Your task to perform on an android device: refresh tabs in the chrome app Image 0: 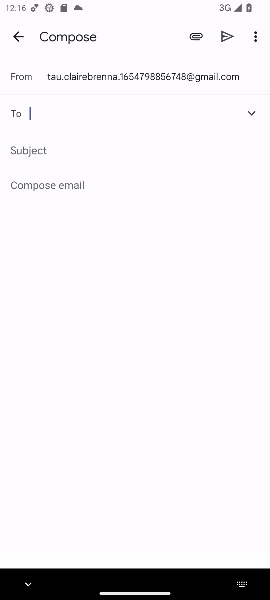
Step 0: press home button
Your task to perform on an android device: refresh tabs in the chrome app Image 1: 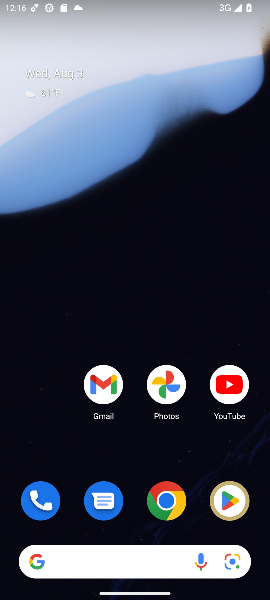
Step 1: click (163, 501)
Your task to perform on an android device: refresh tabs in the chrome app Image 2: 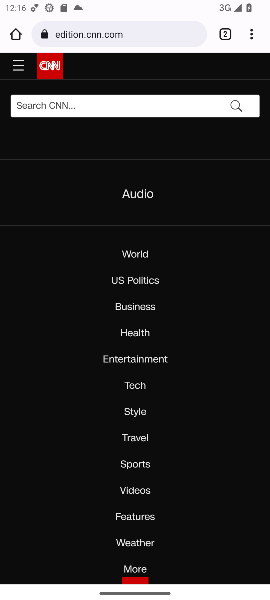
Step 2: click (259, 23)
Your task to perform on an android device: refresh tabs in the chrome app Image 3: 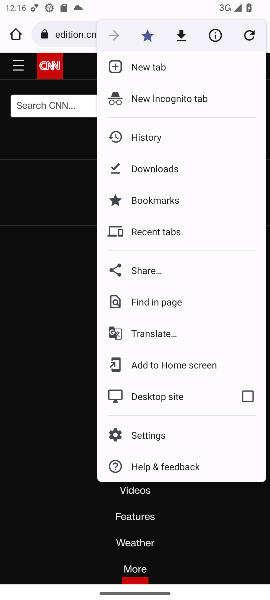
Step 3: click (248, 33)
Your task to perform on an android device: refresh tabs in the chrome app Image 4: 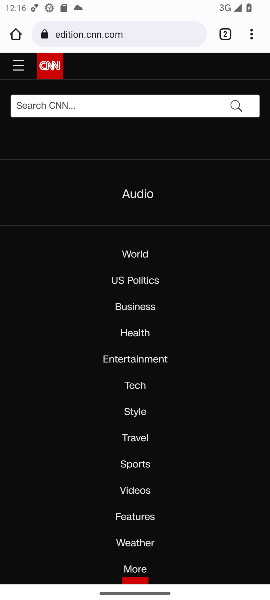
Step 4: task complete